Your task to perform on an android device: toggle wifi Image 0: 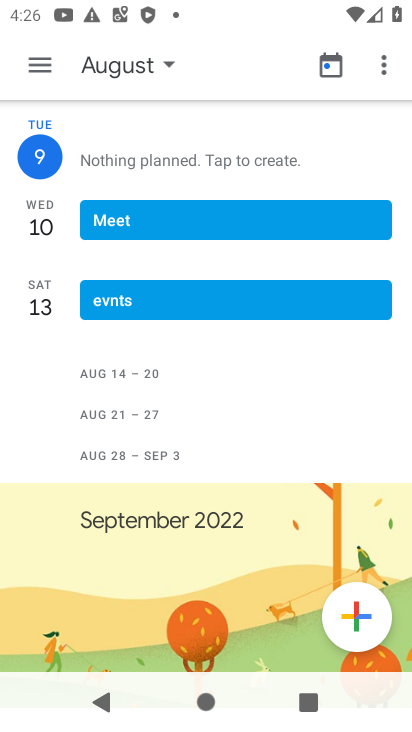
Step 0: drag from (200, 16) to (207, 581)
Your task to perform on an android device: toggle wifi Image 1: 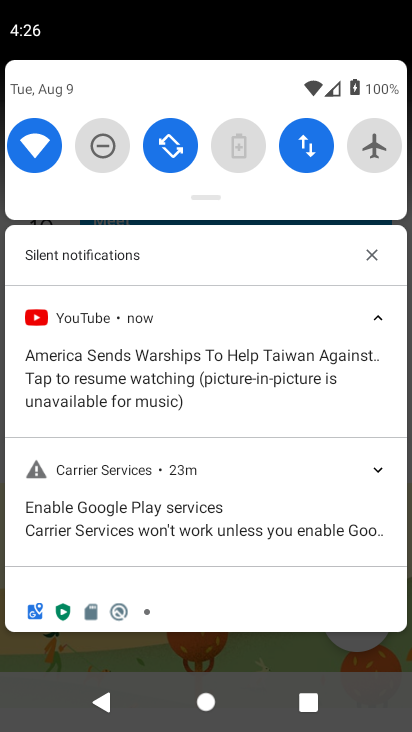
Step 1: click (203, 513)
Your task to perform on an android device: toggle wifi Image 2: 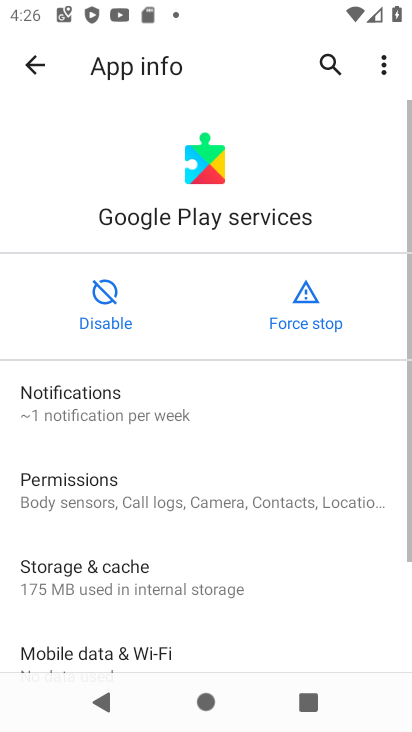
Step 2: drag from (245, 11) to (362, 688)
Your task to perform on an android device: toggle wifi Image 3: 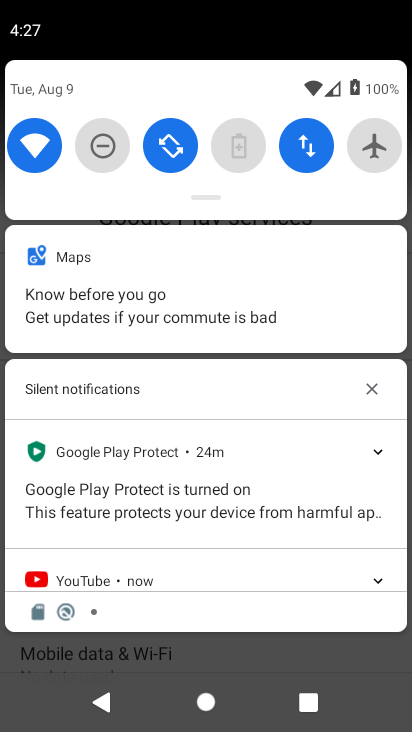
Step 3: click (35, 155)
Your task to perform on an android device: toggle wifi Image 4: 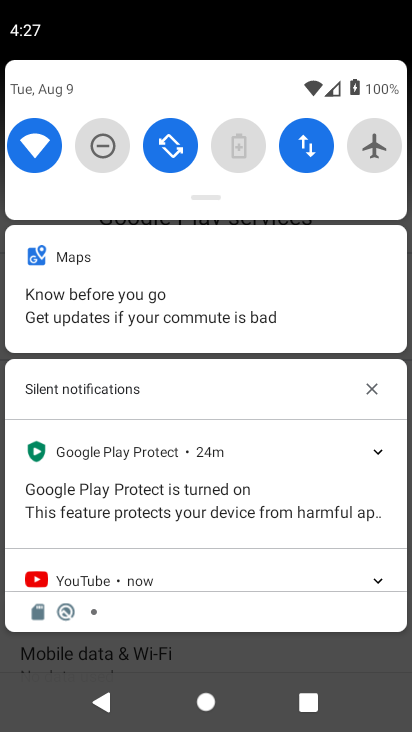
Step 4: click (35, 155)
Your task to perform on an android device: toggle wifi Image 5: 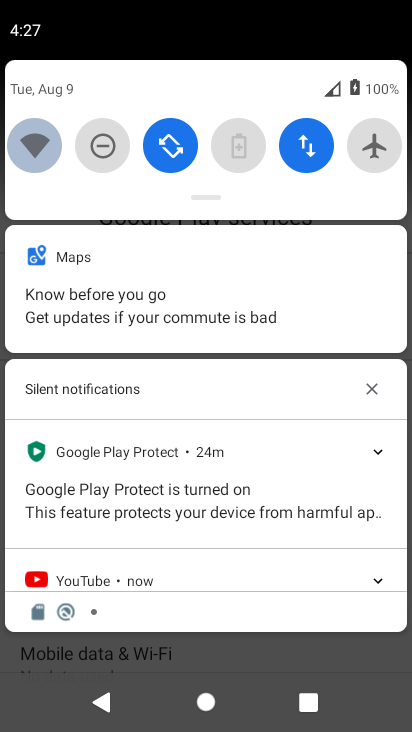
Step 5: click (35, 155)
Your task to perform on an android device: toggle wifi Image 6: 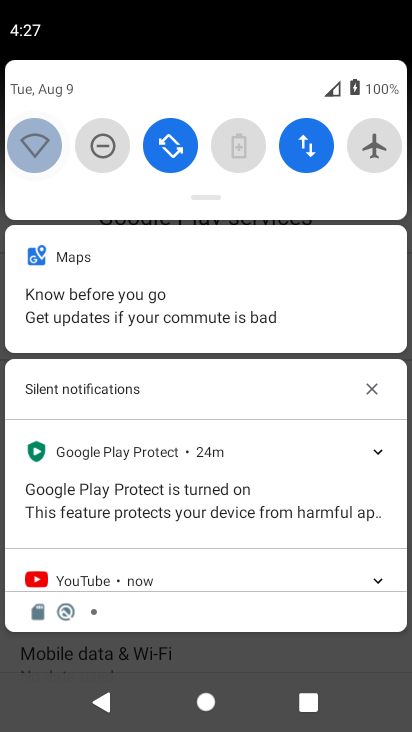
Step 6: click (35, 155)
Your task to perform on an android device: toggle wifi Image 7: 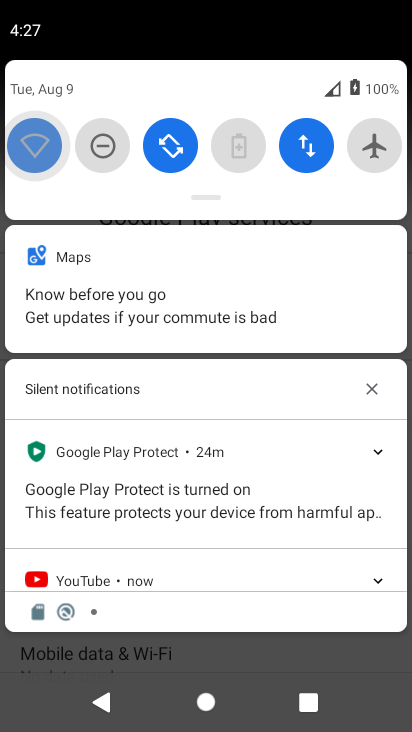
Step 7: click (35, 155)
Your task to perform on an android device: toggle wifi Image 8: 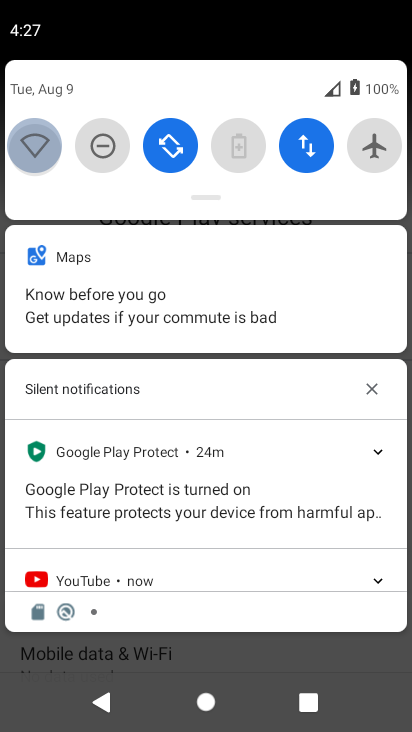
Step 8: click (35, 155)
Your task to perform on an android device: toggle wifi Image 9: 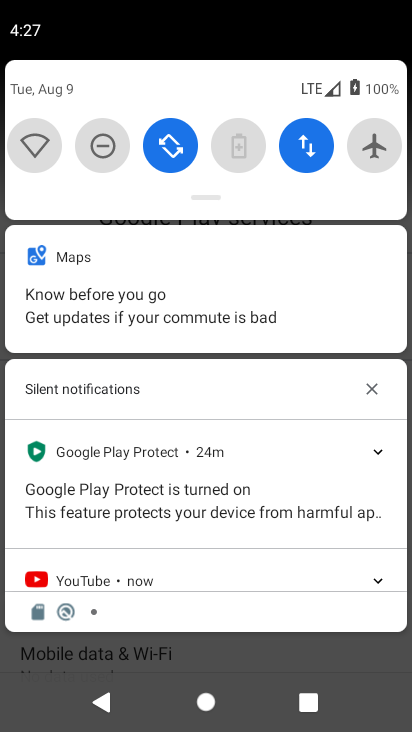
Step 9: click (35, 155)
Your task to perform on an android device: toggle wifi Image 10: 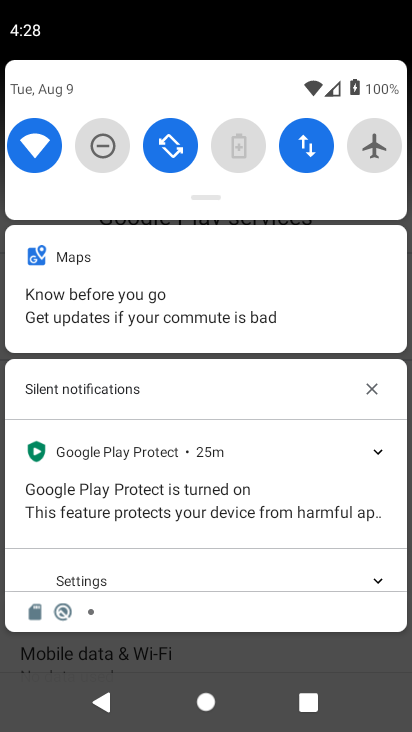
Step 10: task complete